Your task to perform on an android device: Play the last video I watched on Youtube Image 0: 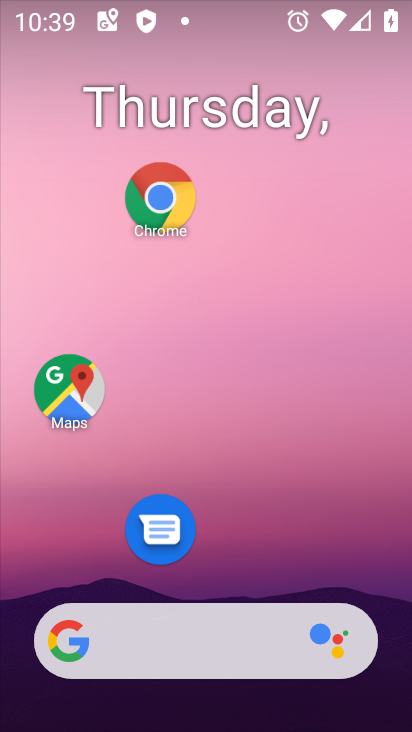
Step 0: drag from (306, 520) to (252, 103)
Your task to perform on an android device: Play the last video I watched on Youtube Image 1: 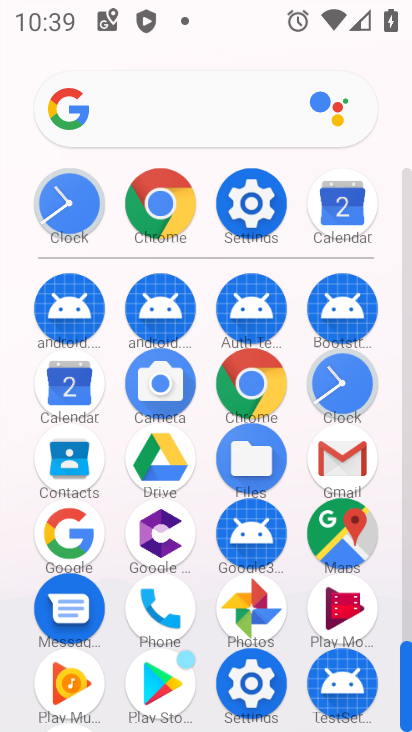
Step 1: drag from (195, 581) to (170, 141)
Your task to perform on an android device: Play the last video I watched on Youtube Image 2: 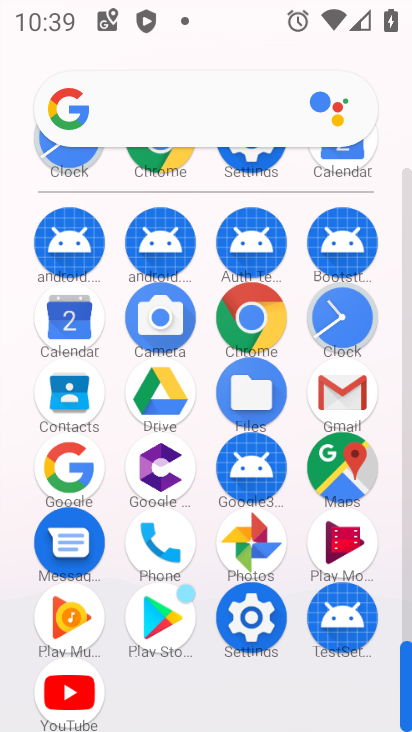
Step 2: click (62, 696)
Your task to perform on an android device: Play the last video I watched on Youtube Image 3: 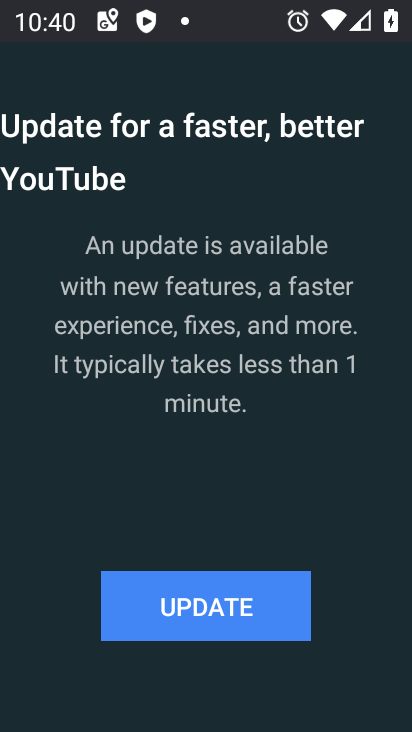
Step 3: click (224, 607)
Your task to perform on an android device: Play the last video I watched on Youtube Image 4: 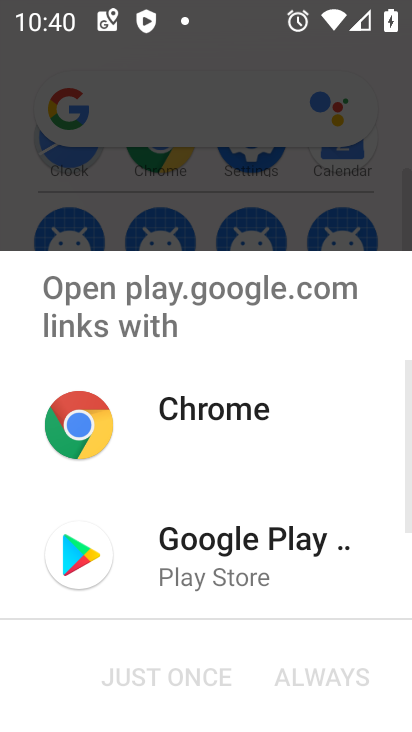
Step 4: click (177, 539)
Your task to perform on an android device: Play the last video I watched on Youtube Image 5: 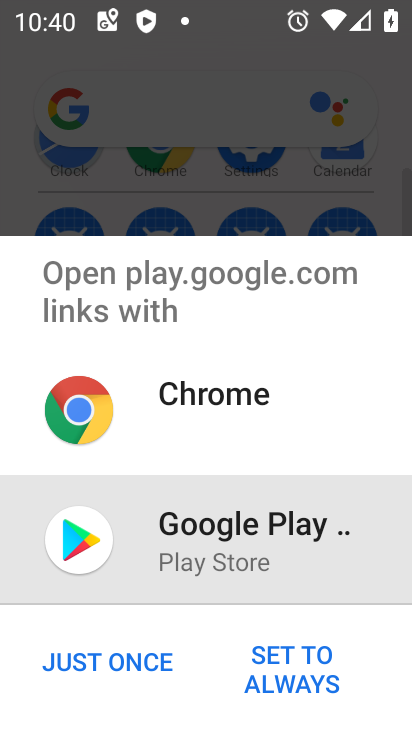
Step 5: click (129, 666)
Your task to perform on an android device: Play the last video I watched on Youtube Image 6: 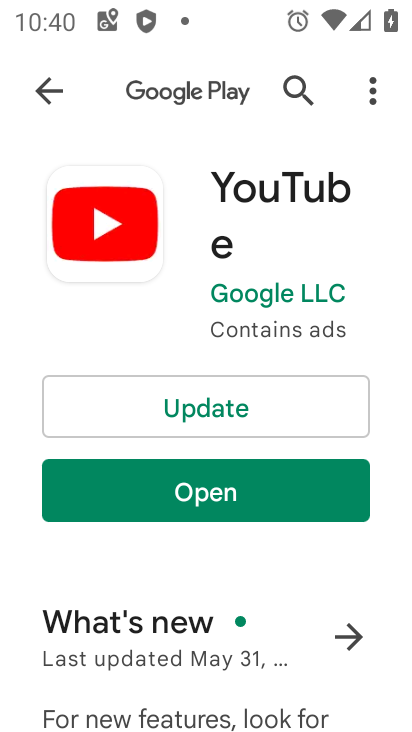
Step 6: click (205, 412)
Your task to perform on an android device: Play the last video I watched on Youtube Image 7: 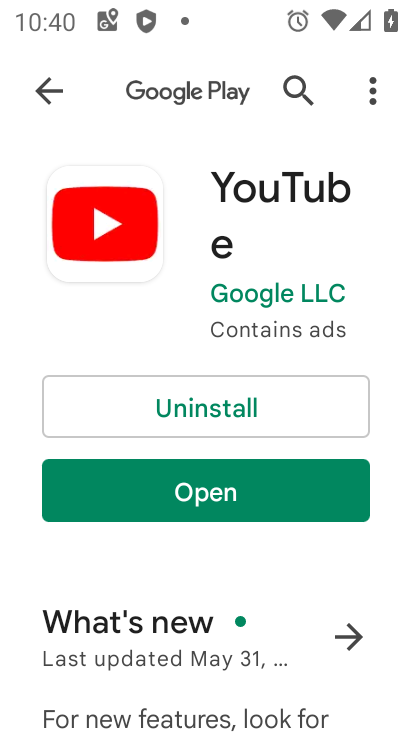
Step 7: click (206, 481)
Your task to perform on an android device: Play the last video I watched on Youtube Image 8: 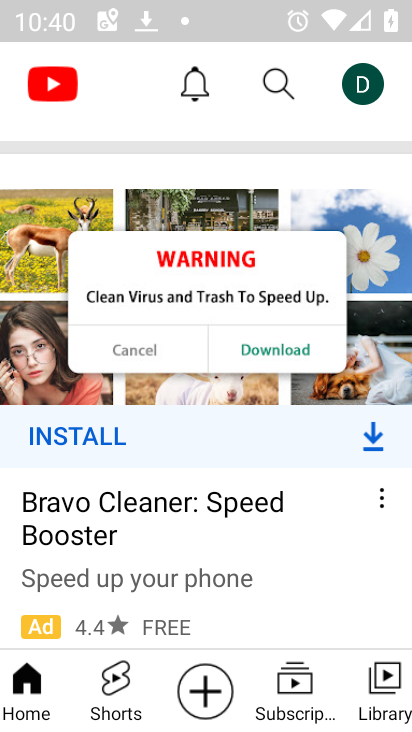
Step 8: click (375, 678)
Your task to perform on an android device: Play the last video I watched on Youtube Image 9: 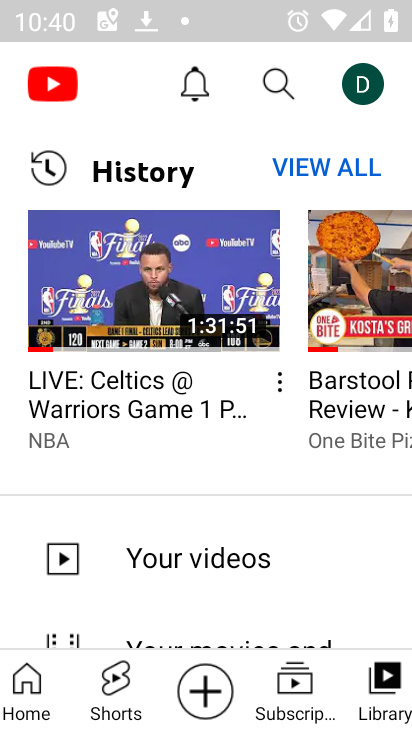
Step 9: click (126, 282)
Your task to perform on an android device: Play the last video I watched on Youtube Image 10: 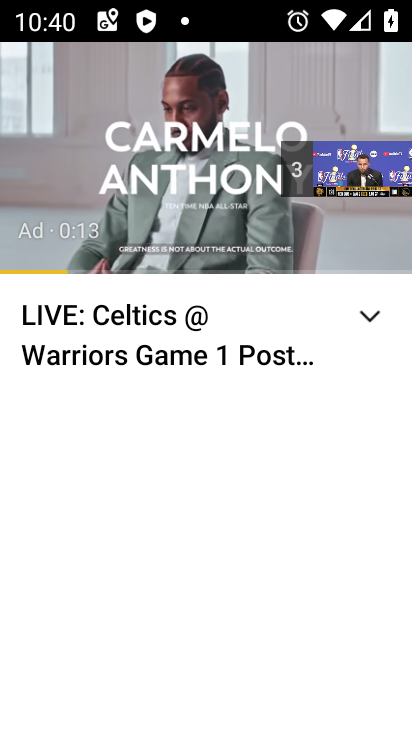
Step 10: task complete